Your task to perform on an android device: toggle improve location accuracy Image 0: 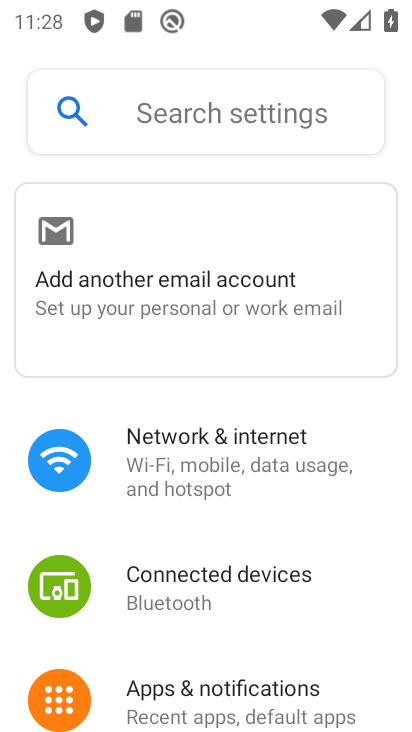
Step 0: drag from (258, 612) to (298, 117)
Your task to perform on an android device: toggle improve location accuracy Image 1: 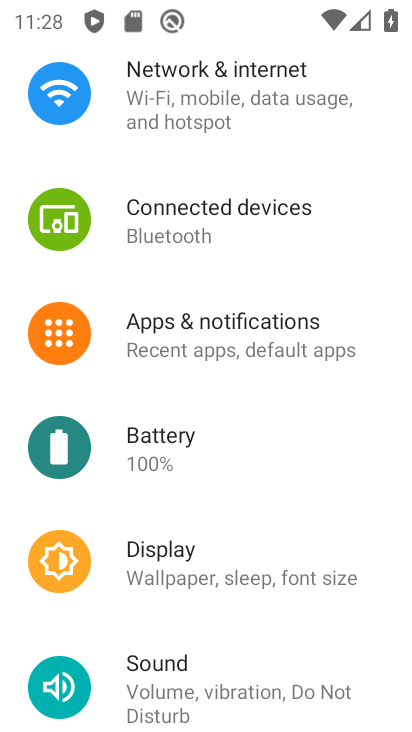
Step 1: drag from (227, 595) to (265, 159)
Your task to perform on an android device: toggle improve location accuracy Image 2: 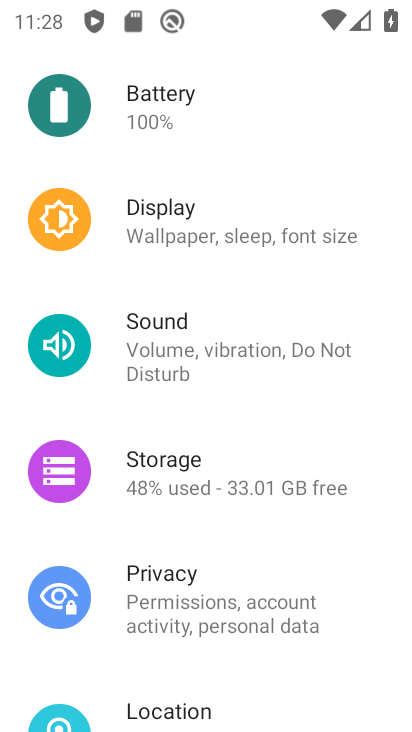
Step 2: drag from (231, 585) to (278, 111)
Your task to perform on an android device: toggle improve location accuracy Image 3: 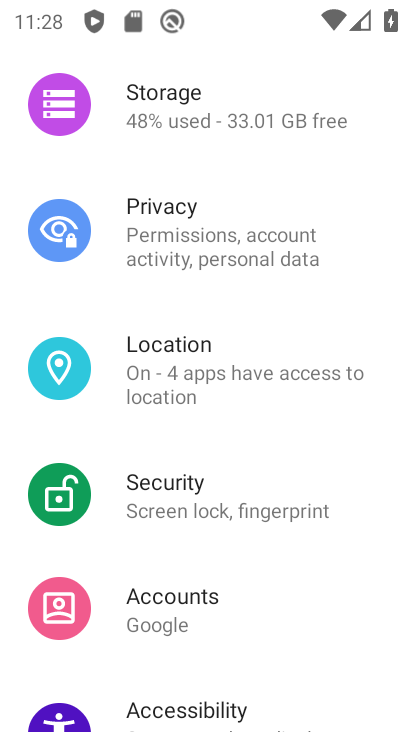
Step 3: click (205, 354)
Your task to perform on an android device: toggle improve location accuracy Image 4: 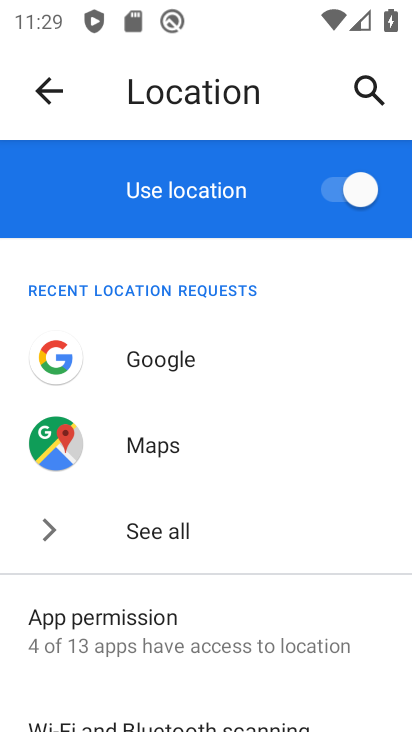
Step 4: drag from (193, 686) to (267, 219)
Your task to perform on an android device: toggle improve location accuracy Image 5: 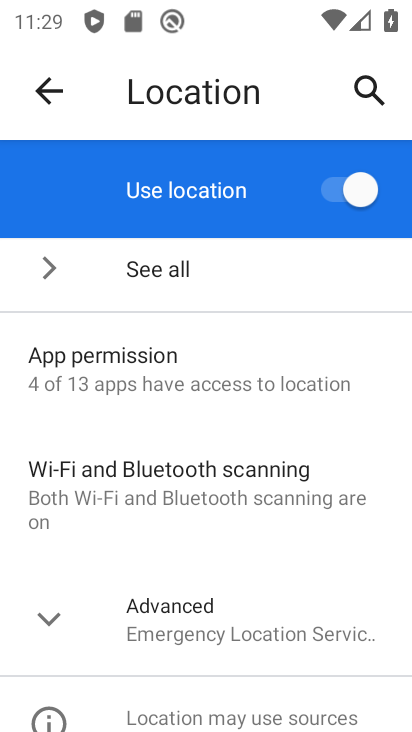
Step 5: click (202, 610)
Your task to perform on an android device: toggle improve location accuracy Image 6: 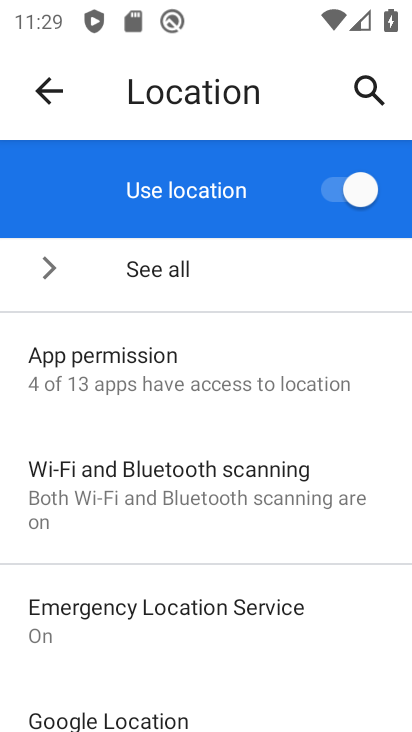
Step 6: drag from (249, 643) to (275, 213)
Your task to perform on an android device: toggle improve location accuracy Image 7: 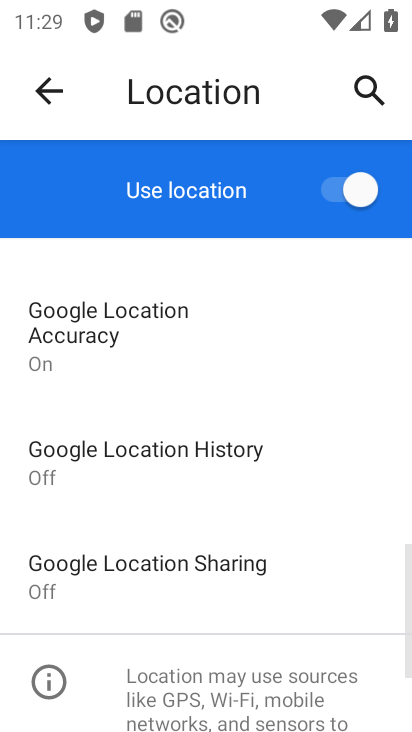
Step 7: click (80, 312)
Your task to perform on an android device: toggle improve location accuracy Image 8: 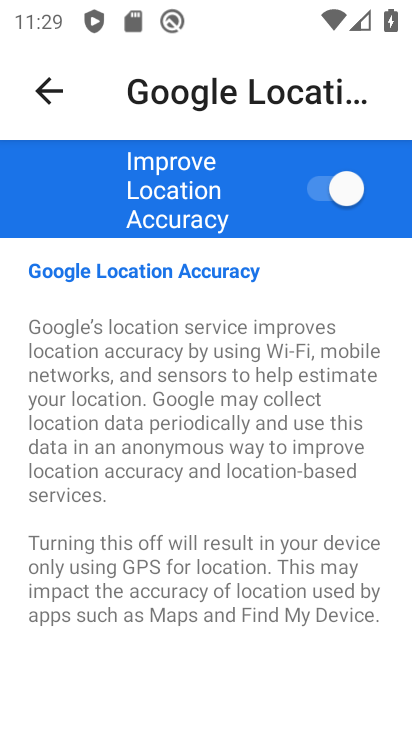
Step 8: click (329, 182)
Your task to perform on an android device: toggle improve location accuracy Image 9: 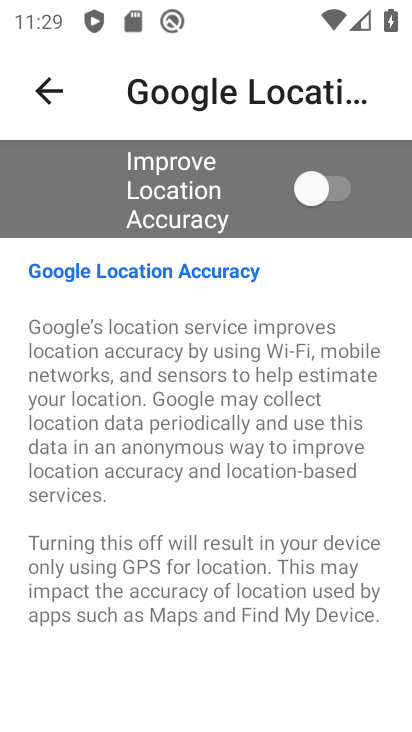
Step 9: task complete